Your task to perform on an android device: Open Android settings Image 0: 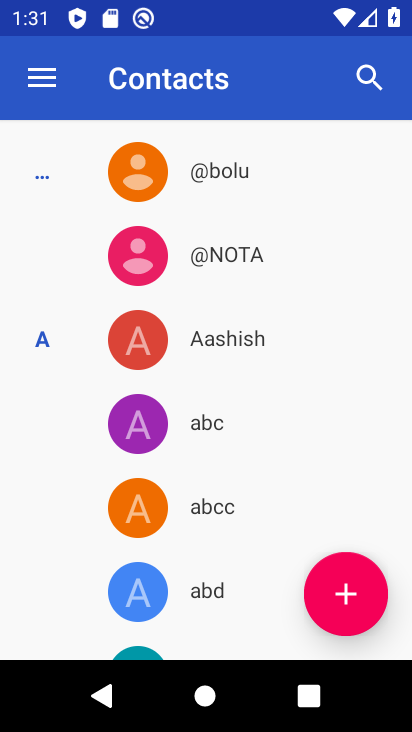
Step 0: press back button
Your task to perform on an android device: Open Android settings Image 1: 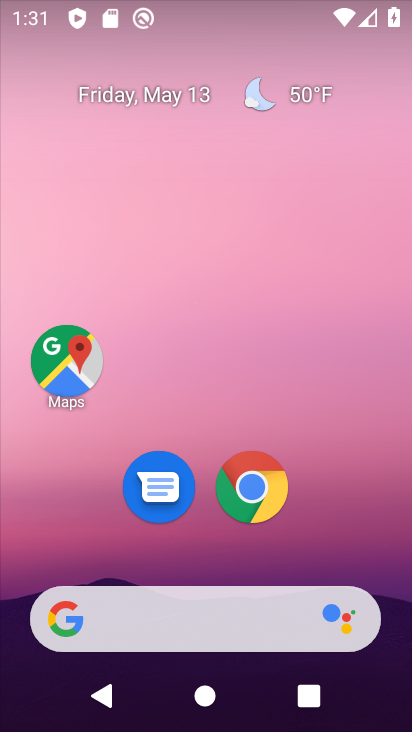
Step 1: drag from (97, 589) to (235, 170)
Your task to perform on an android device: Open Android settings Image 2: 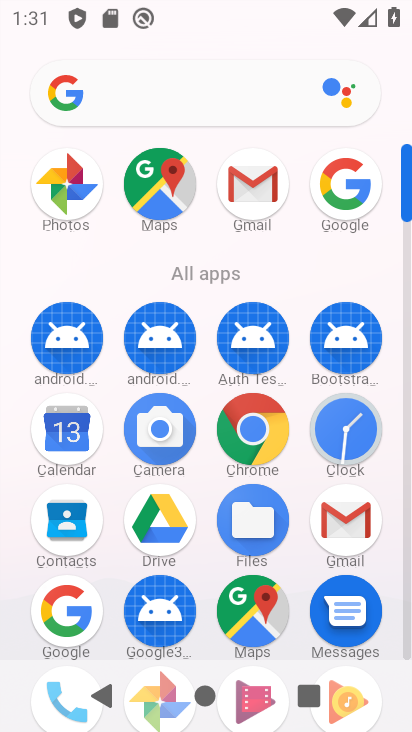
Step 2: drag from (199, 671) to (273, 436)
Your task to perform on an android device: Open Android settings Image 3: 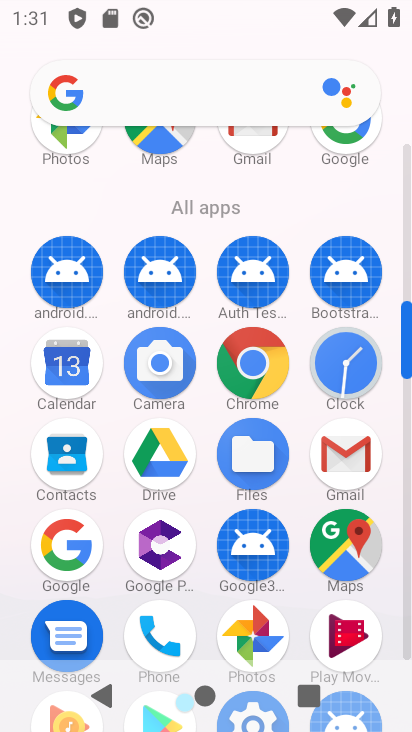
Step 3: drag from (186, 628) to (292, 377)
Your task to perform on an android device: Open Android settings Image 4: 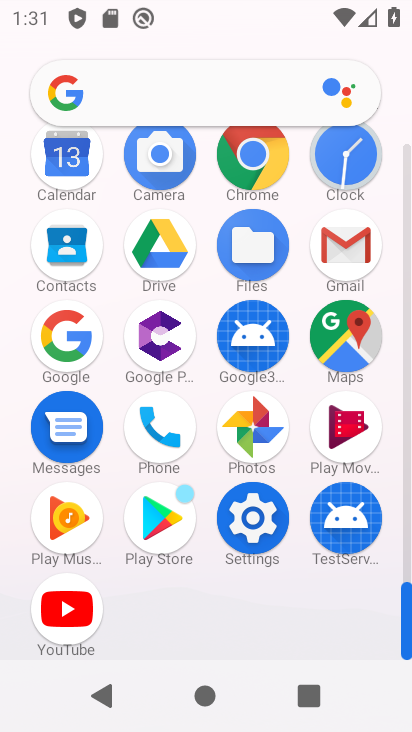
Step 4: click (251, 541)
Your task to perform on an android device: Open Android settings Image 5: 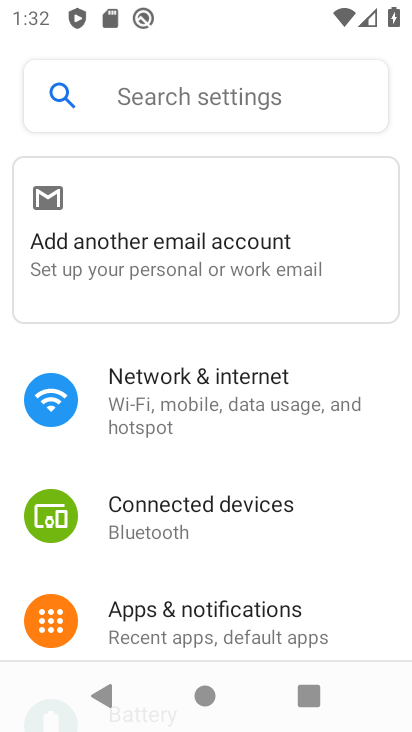
Step 5: task complete